Your task to perform on an android device: Check the news Image 0: 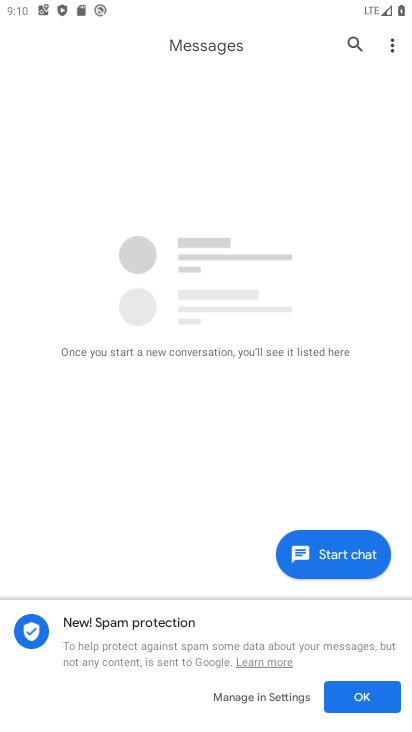
Step 0: press back button
Your task to perform on an android device: Check the news Image 1: 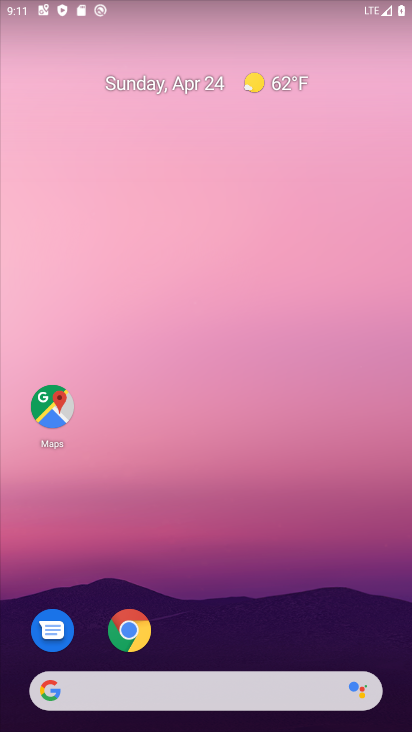
Step 1: drag from (266, 608) to (237, 27)
Your task to perform on an android device: Check the news Image 2: 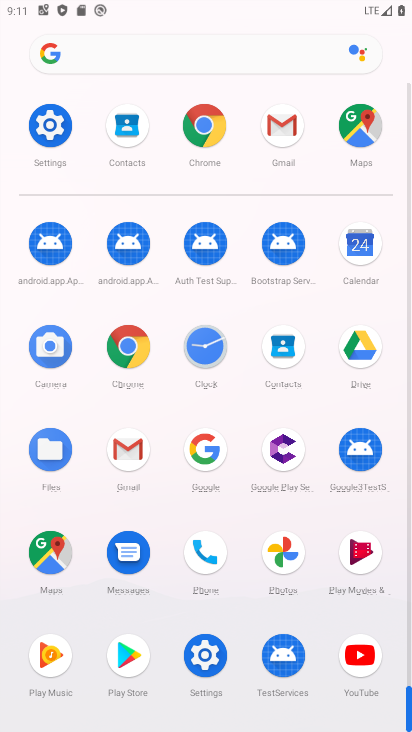
Step 2: click (189, 48)
Your task to perform on an android device: Check the news Image 3: 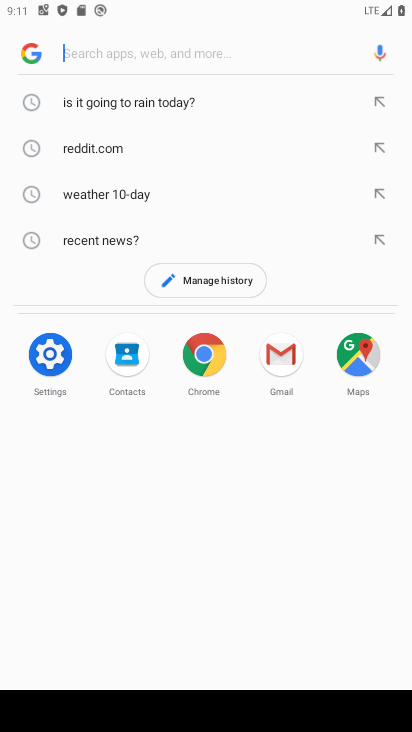
Step 3: click (89, 250)
Your task to perform on an android device: Check the news Image 4: 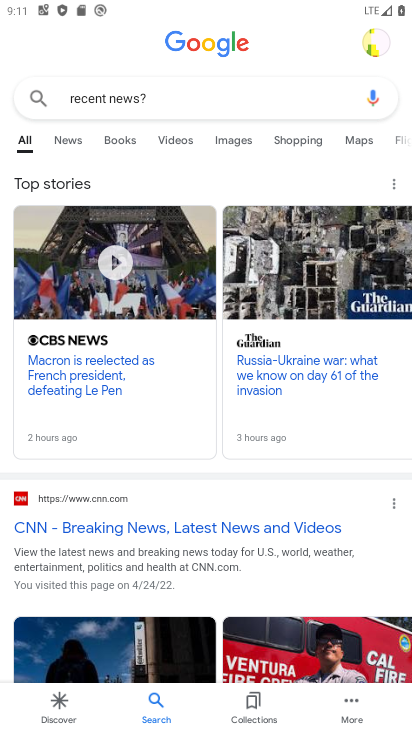
Step 4: task complete